Your task to perform on an android device: Open the calendar and show me this week's events? Image 0: 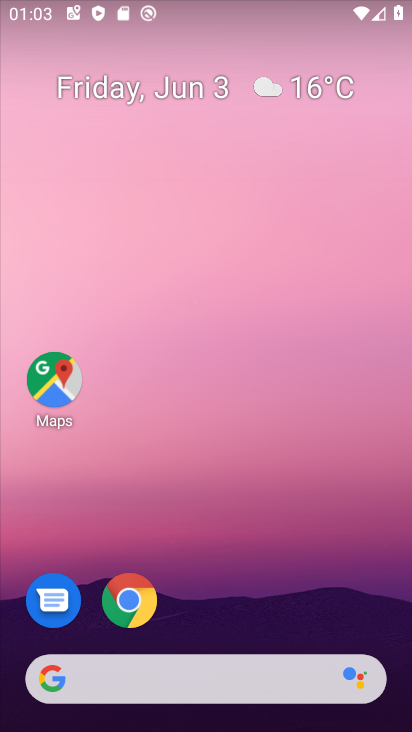
Step 0: drag from (257, 519) to (194, 47)
Your task to perform on an android device: Open the calendar and show me this week's events? Image 1: 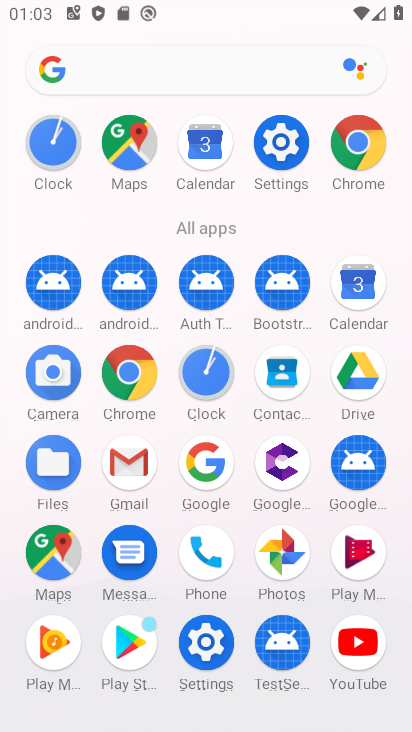
Step 1: drag from (10, 567) to (26, 194)
Your task to perform on an android device: Open the calendar and show me this week's events? Image 2: 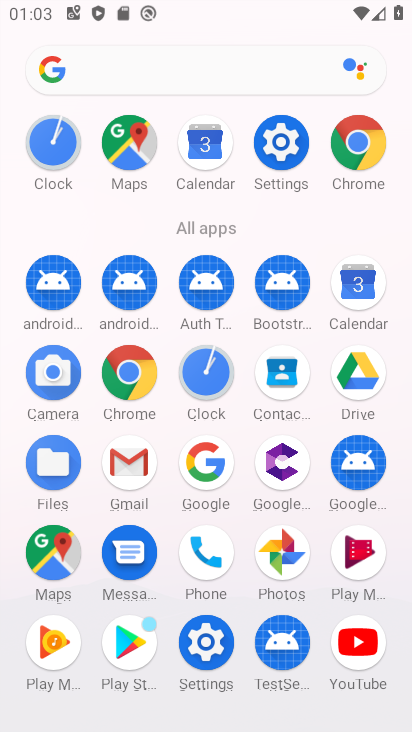
Step 2: click (356, 280)
Your task to perform on an android device: Open the calendar and show me this week's events? Image 3: 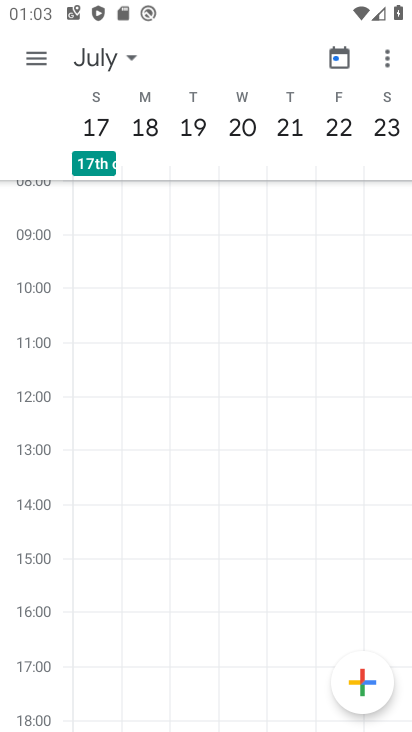
Step 3: click (34, 58)
Your task to perform on an android device: Open the calendar and show me this week's events? Image 4: 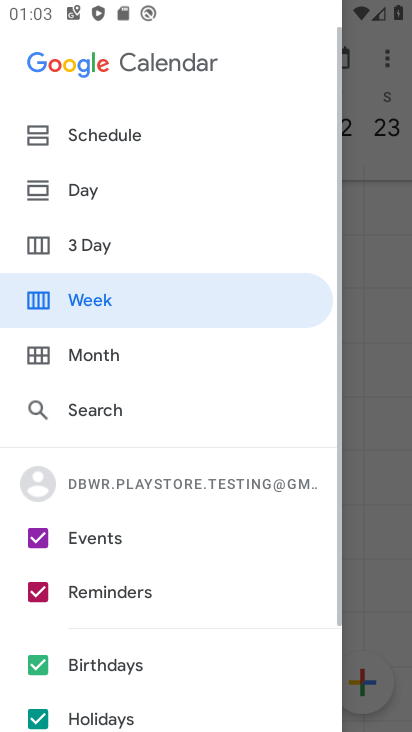
Step 4: drag from (200, 173) to (227, 480)
Your task to perform on an android device: Open the calendar and show me this week's events? Image 5: 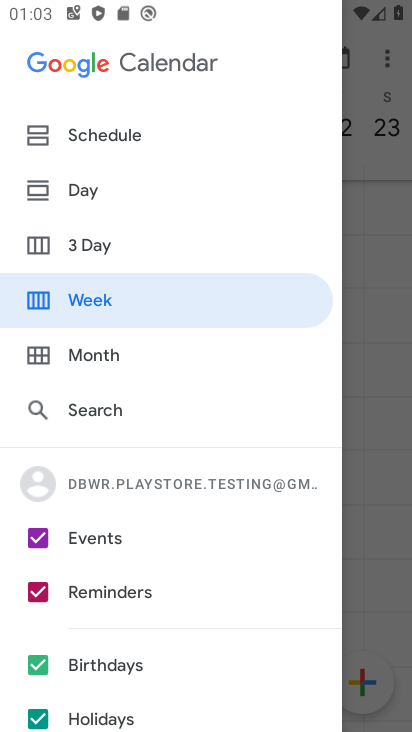
Step 5: click (377, 147)
Your task to perform on an android device: Open the calendar and show me this week's events? Image 6: 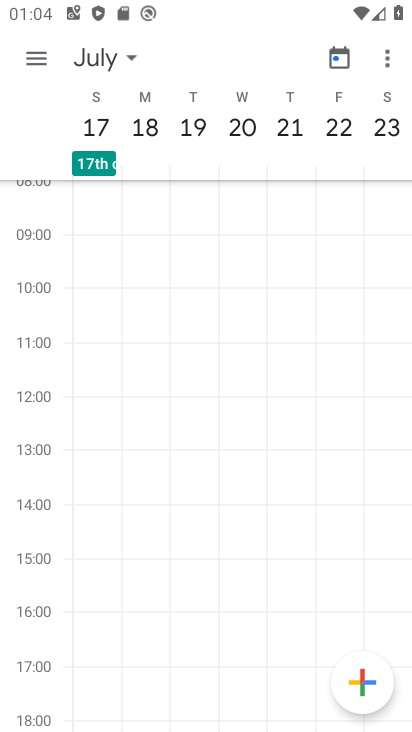
Step 6: click (95, 59)
Your task to perform on an android device: Open the calendar and show me this week's events? Image 7: 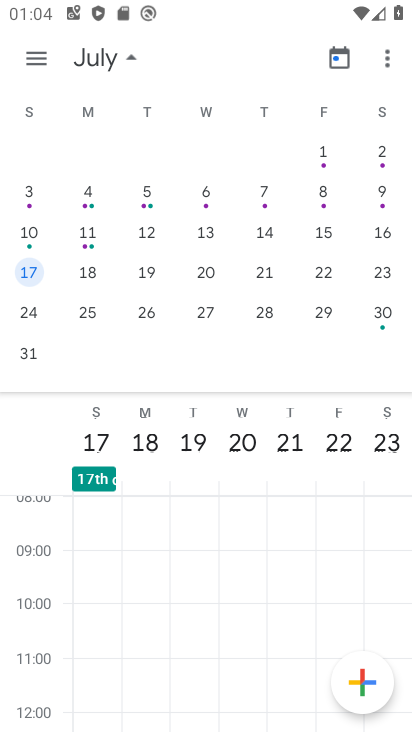
Step 7: click (327, 56)
Your task to perform on an android device: Open the calendar and show me this week's events? Image 8: 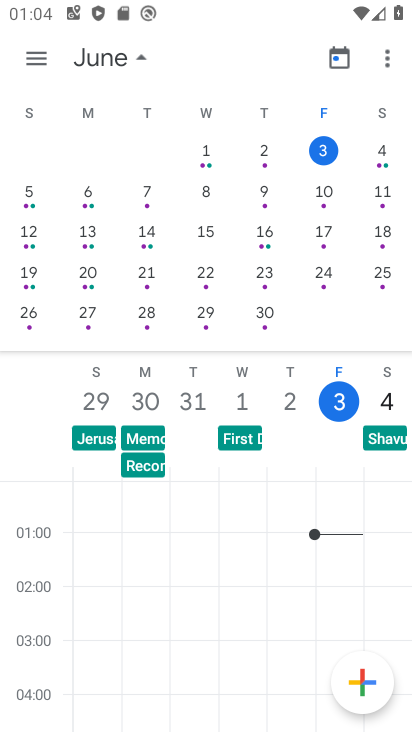
Step 8: click (111, 59)
Your task to perform on an android device: Open the calendar and show me this week's events? Image 9: 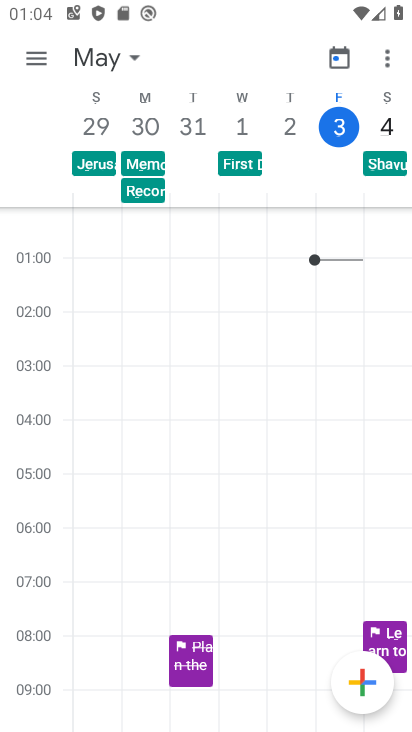
Step 9: task complete